Your task to perform on an android device: Do I have any events tomorrow? Image 0: 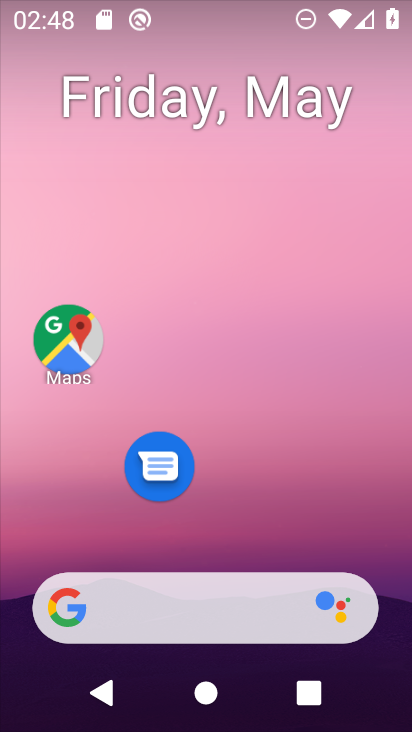
Step 0: drag from (372, 509) to (224, 193)
Your task to perform on an android device: Do I have any events tomorrow? Image 1: 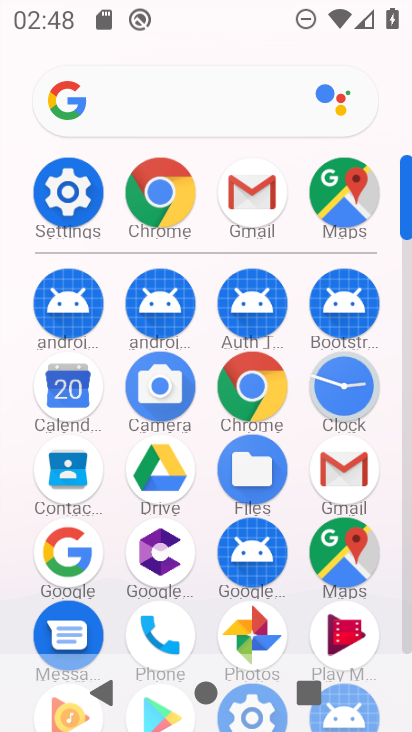
Step 1: click (89, 402)
Your task to perform on an android device: Do I have any events tomorrow? Image 2: 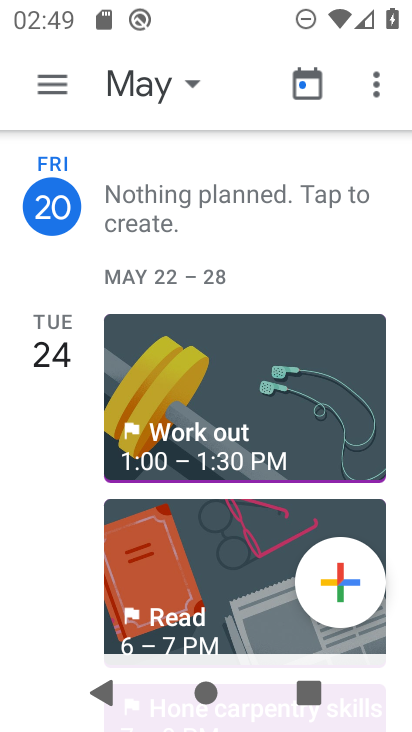
Step 2: task complete